Your task to perform on an android device: Open Google Maps Image 0: 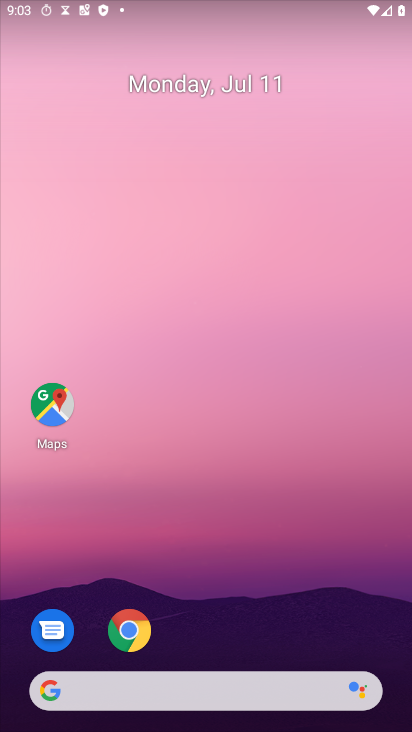
Step 0: press home button
Your task to perform on an android device: Open Google Maps Image 1: 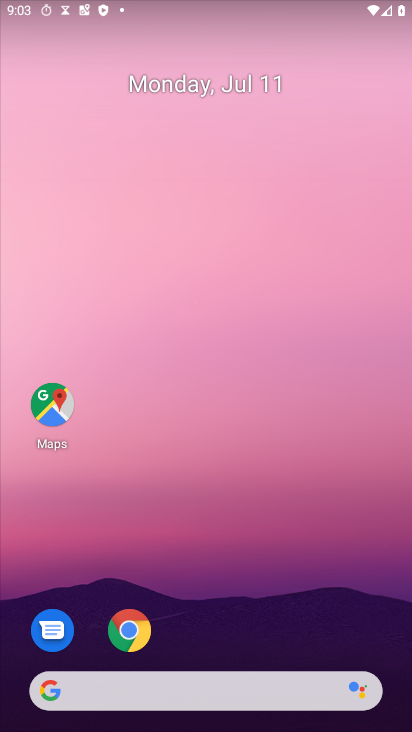
Step 1: click (49, 400)
Your task to perform on an android device: Open Google Maps Image 2: 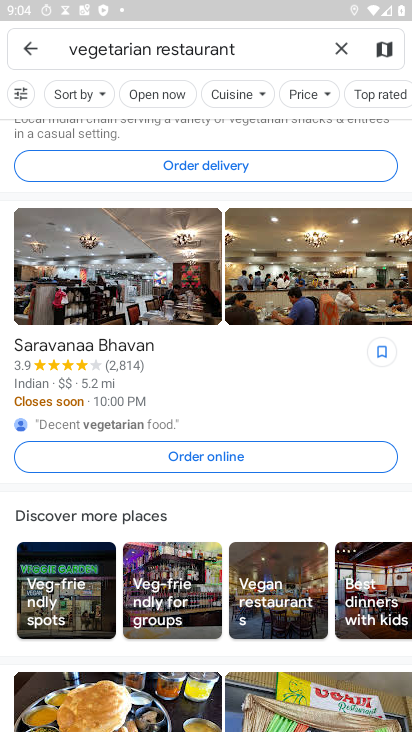
Step 2: click (36, 43)
Your task to perform on an android device: Open Google Maps Image 3: 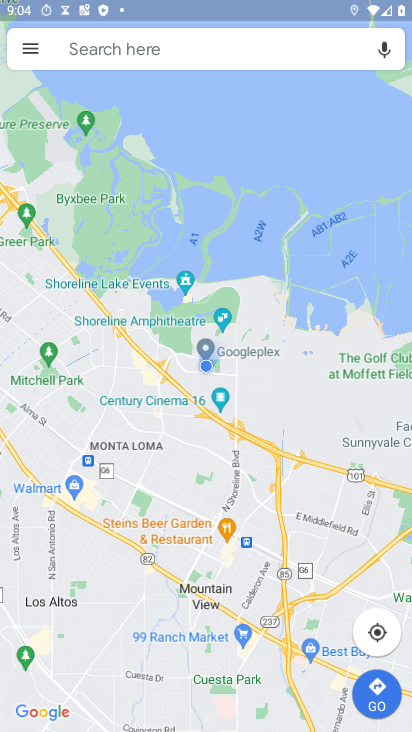
Step 3: task complete